Your task to perform on an android device: Open network settings Image 0: 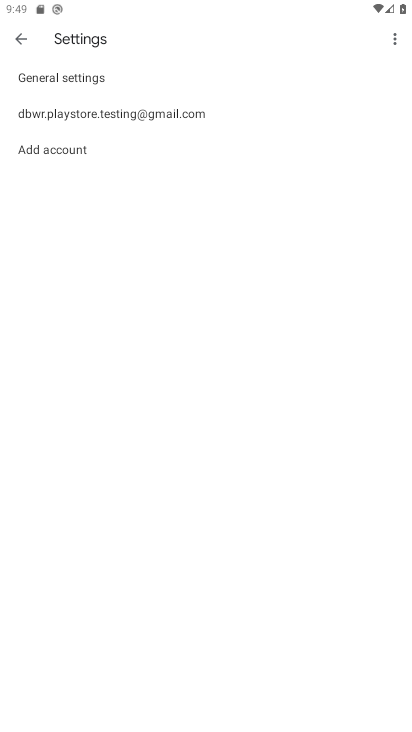
Step 0: press back button
Your task to perform on an android device: Open network settings Image 1: 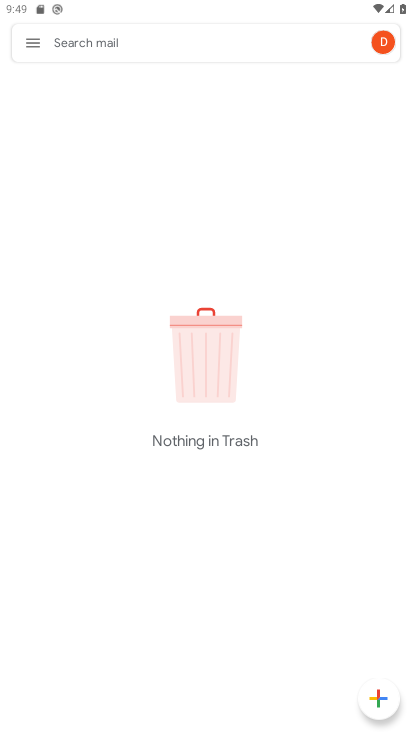
Step 1: press back button
Your task to perform on an android device: Open network settings Image 2: 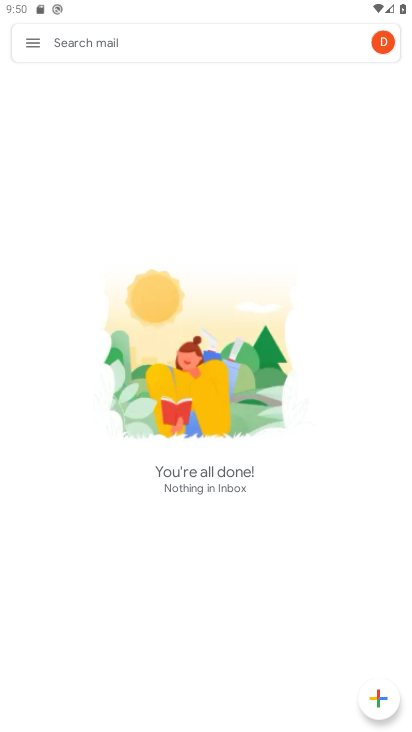
Step 2: press back button
Your task to perform on an android device: Open network settings Image 3: 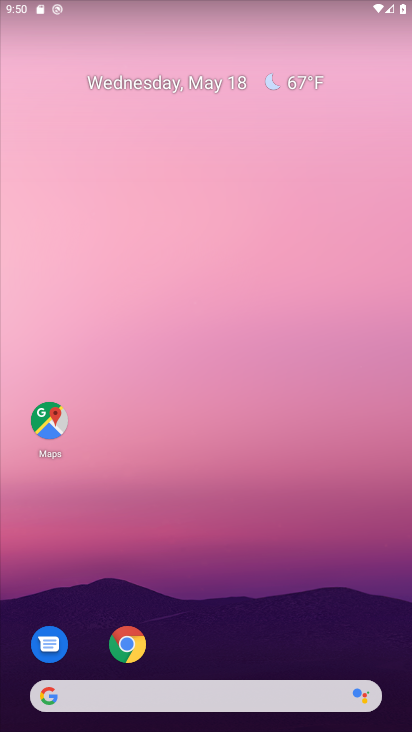
Step 3: drag from (237, 539) to (153, 105)
Your task to perform on an android device: Open network settings Image 4: 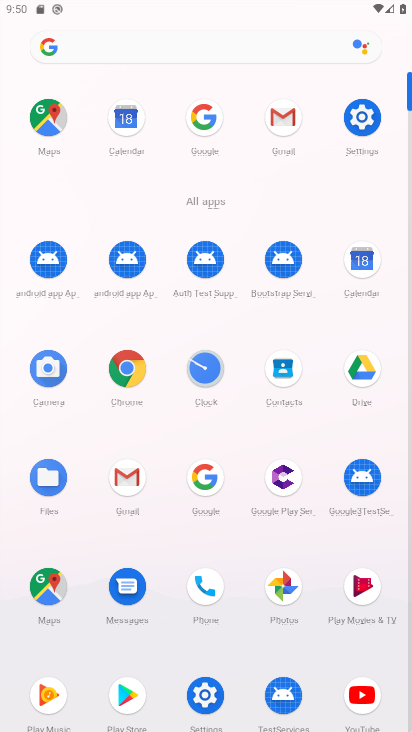
Step 4: click (361, 115)
Your task to perform on an android device: Open network settings Image 5: 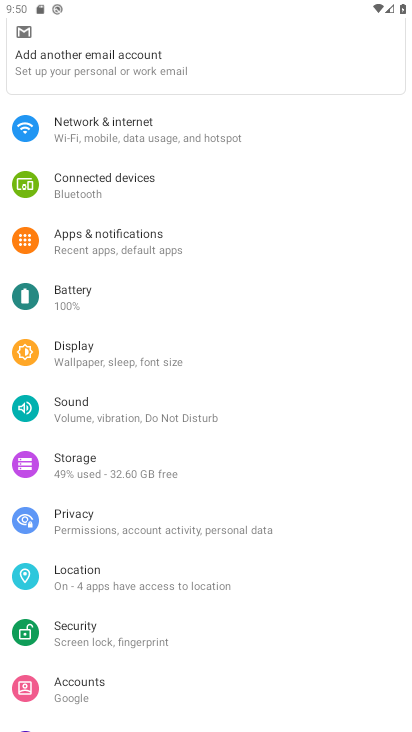
Step 5: click (158, 134)
Your task to perform on an android device: Open network settings Image 6: 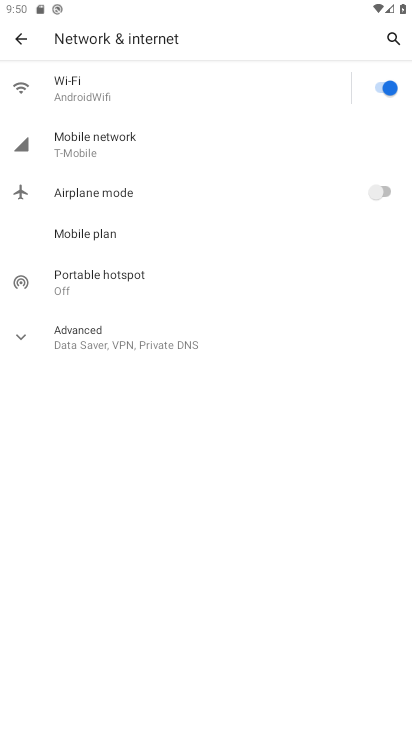
Step 6: click (158, 134)
Your task to perform on an android device: Open network settings Image 7: 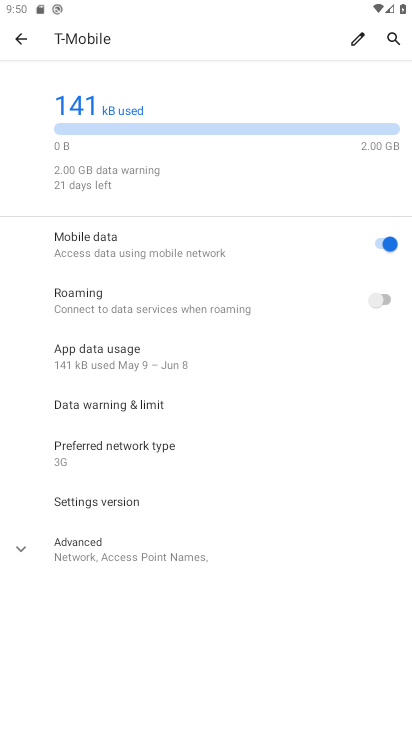
Step 7: task complete